Your task to perform on an android device: find photos in the google photos app Image 0: 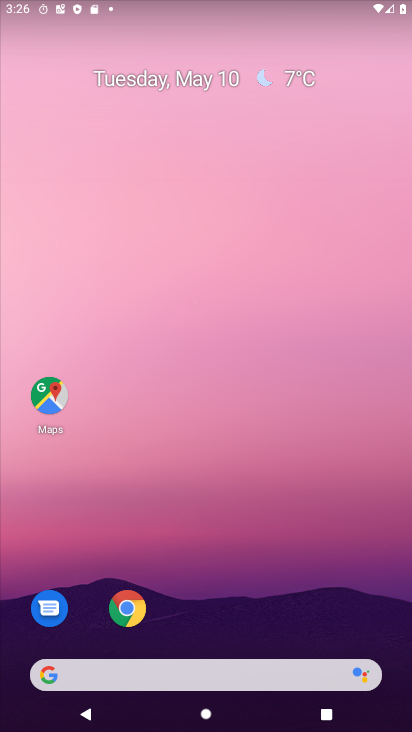
Step 0: drag from (308, 621) to (329, 32)
Your task to perform on an android device: find photos in the google photos app Image 1: 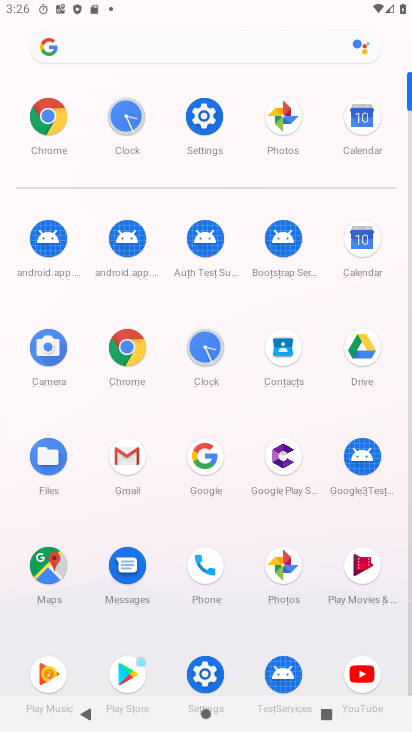
Step 1: click (285, 122)
Your task to perform on an android device: find photos in the google photos app Image 2: 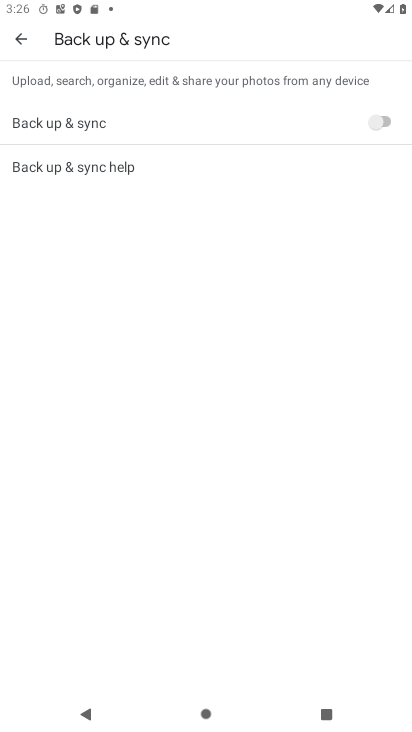
Step 2: click (21, 40)
Your task to perform on an android device: find photos in the google photos app Image 3: 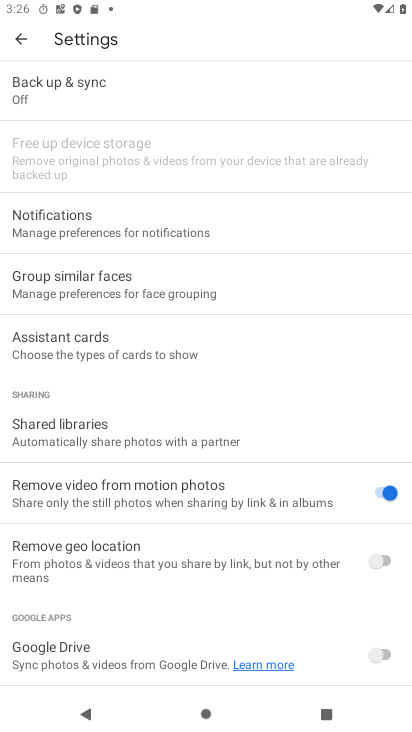
Step 3: click (19, 39)
Your task to perform on an android device: find photos in the google photos app Image 4: 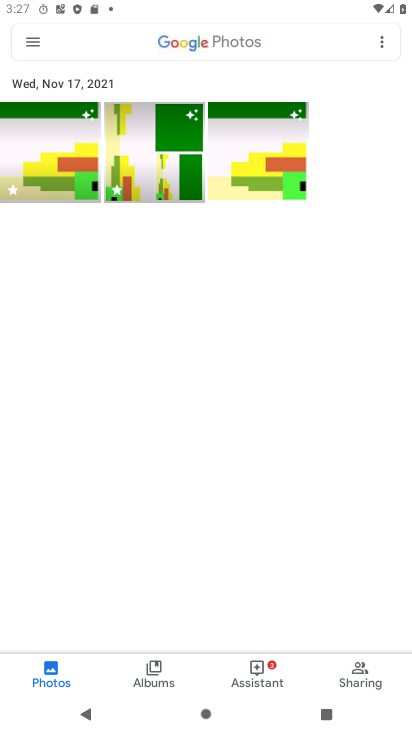
Step 4: task complete